Your task to perform on an android device: open app "Firefox Browser" Image 0: 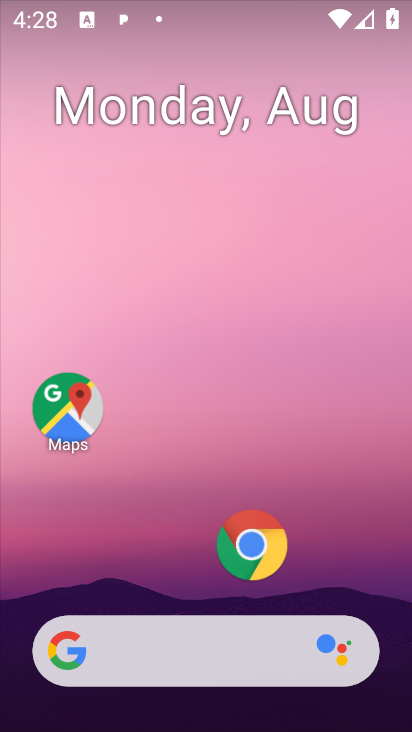
Step 0: drag from (173, 411) to (199, 103)
Your task to perform on an android device: open app "Firefox Browser" Image 1: 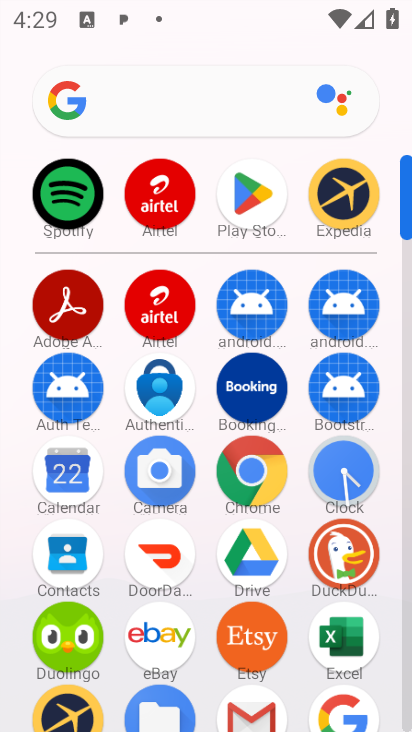
Step 1: click (243, 190)
Your task to perform on an android device: open app "Firefox Browser" Image 2: 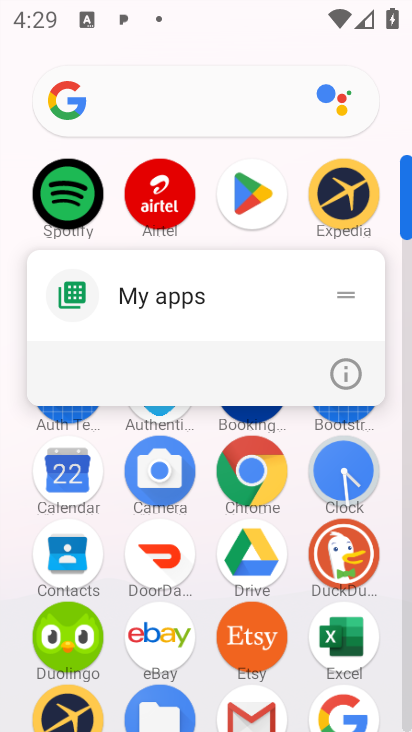
Step 2: click (246, 183)
Your task to perform on an android device: open app "Firefox Browser" Image 3: 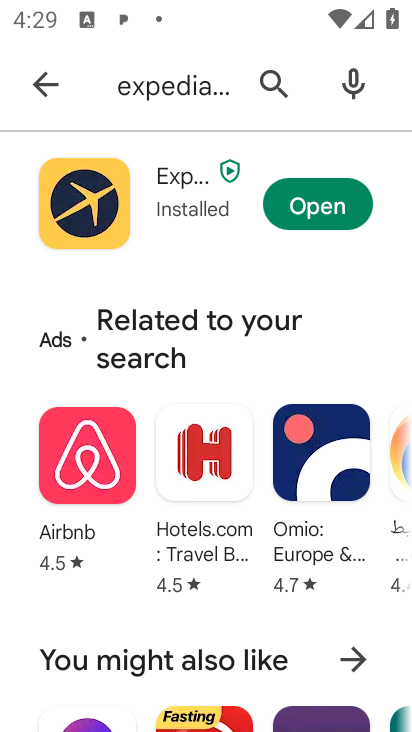
Step 3: click (284, 58)
Your task to perform on an android device: open app "Firefox Browser" Image 4: 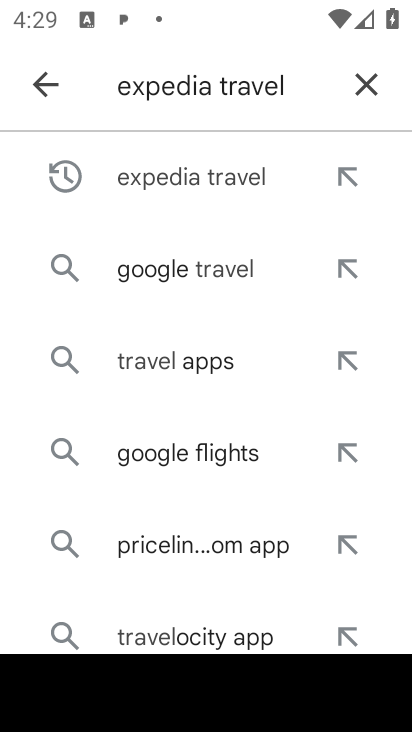
Step 4: click (355, 69)
Your task to perform on an android device: open app "Firefox Browser" Image 5: 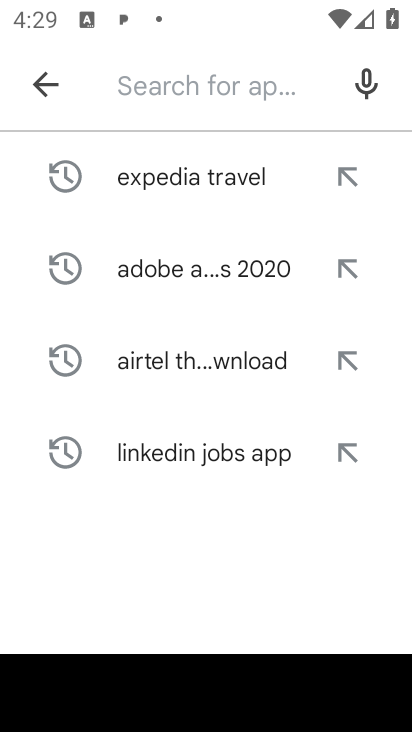
Step 5: click (188, 78)
Your task to perform on an android device: open app "Firefox Browser" Image 6: 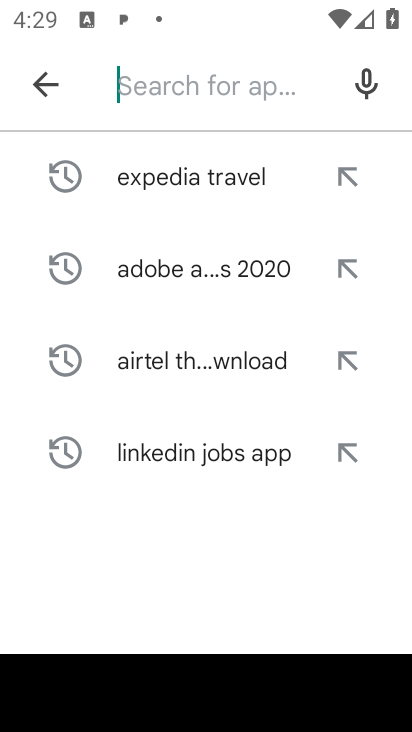
Step 6: type "Firefox Browser"
Your task to perform on an android device: open app "Firefox Browser" Image 7: 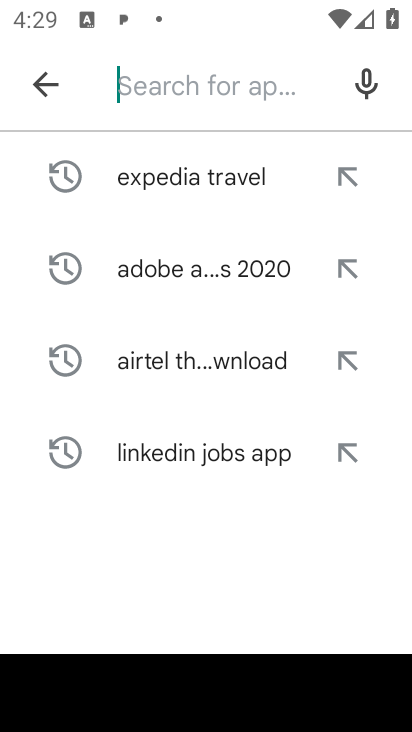
Step 7: click (229, 553)
Your task to perform on an android device: open app "Firefox Browser" Image 8: 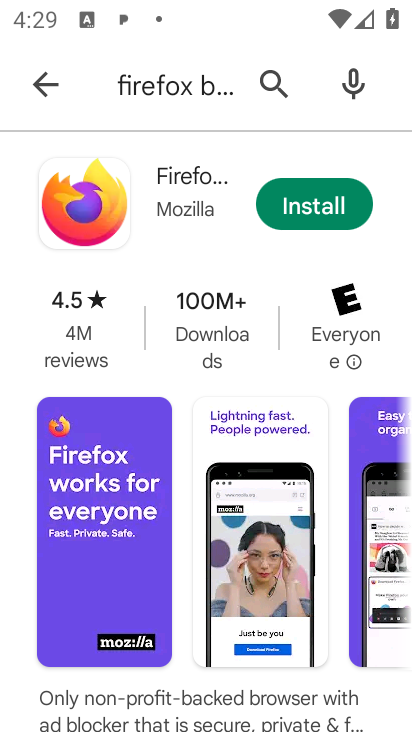
Step 8: task complete